Your task to perform on an android device: open the mobile data screen to see how much data has been used Image 0: 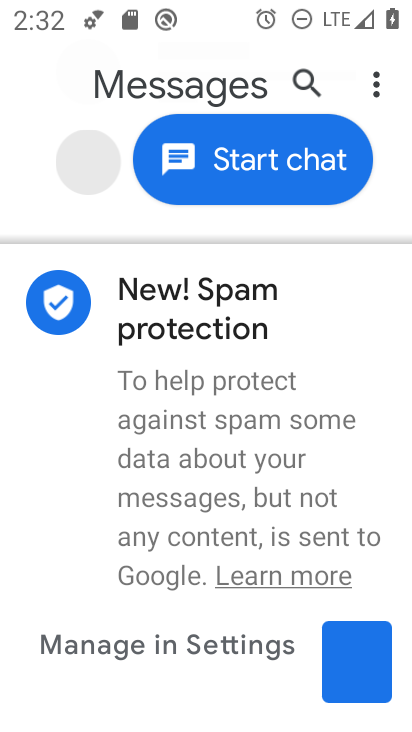
Step 0: press home button
Your task to perform on an android device: open the mobile data screen to see how much data has been used Image 1: 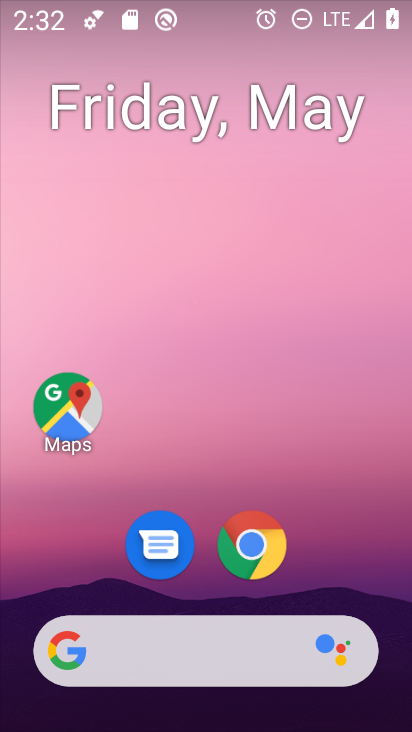
Step 1: drag from (316, 559) to (311, 212)
Your task to perform on an android device: open the mobile data screen to see how much data has been used Image 2: 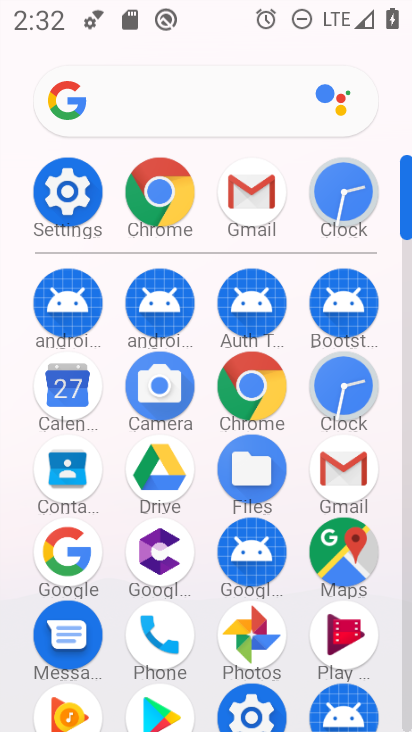
Step 2: click (71, 196)
Your task to perform on an android device: open the mobile data screen to see how much data has been used Image 3: 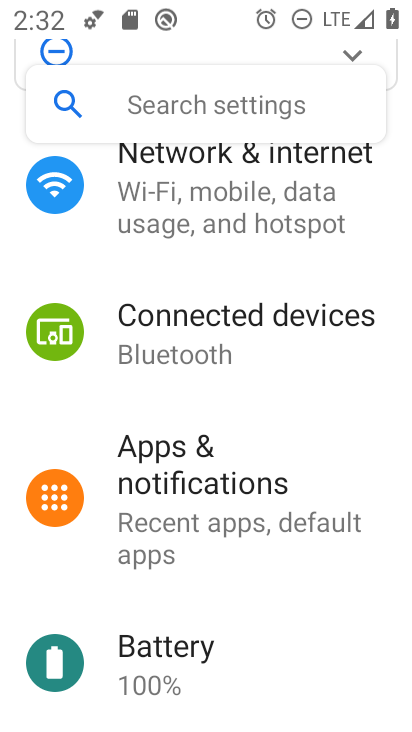
Step 3: click (176, 189)
Your task to perform on an android device: open the mobile data screen to see how much data has been used Image 4: 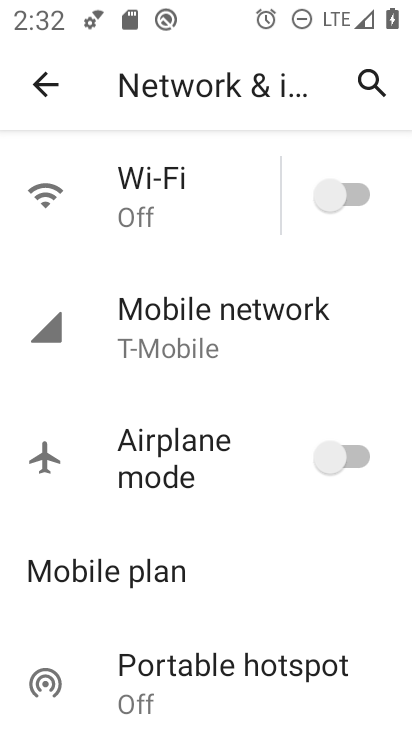
Step 4: click (181, 309)
Your task to perform on an android device: open the mobile data screen to see how much data has been used Image 5: 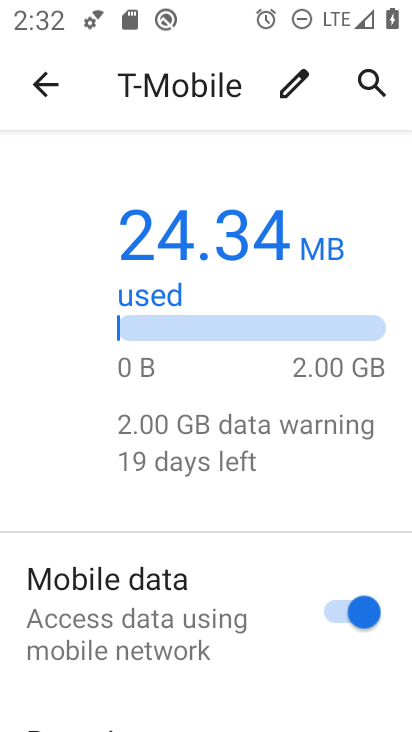
Step 5: task complete